Your task to perform on an android device: Search for logitech g pro on ebay.com, select the first entry, and add it to the cart. Image 0: 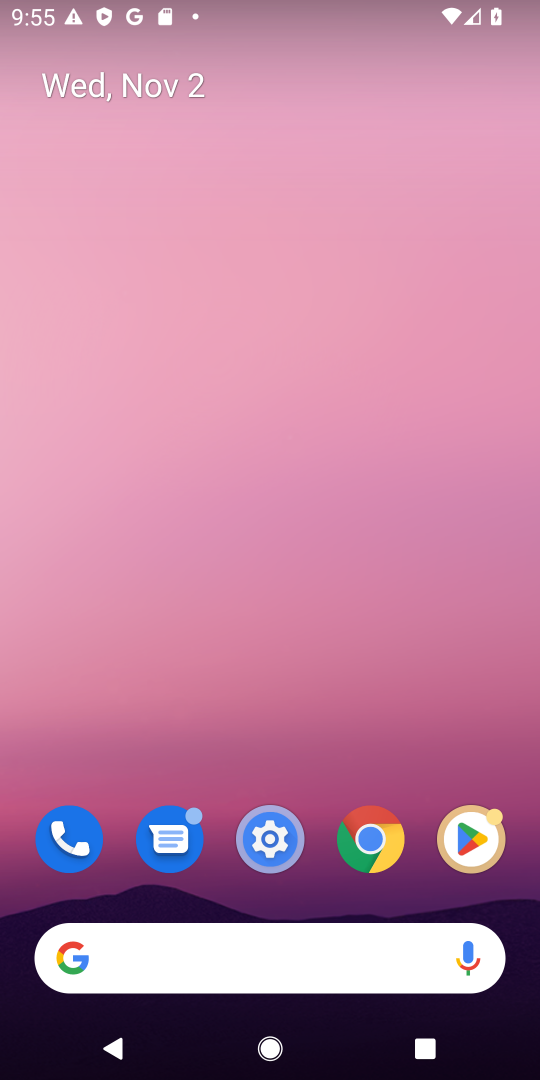
Step 0: drag from (354, 979) to (349, 215)
Your task to perform on an android device: Search for logitech g pro on ebay.com, select the first entry, and add it to the cart. Image 1: 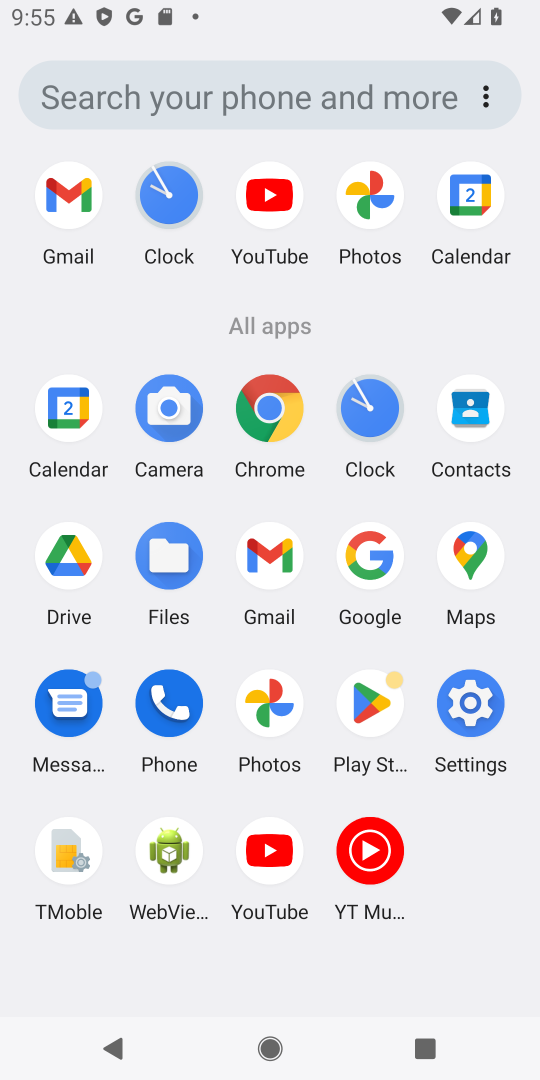
Step 1: click (407, 538)
Your task to perform on an android device: Search for logitech g pro on ebay.com, select the first entry, and add it to the cart. Image 2: 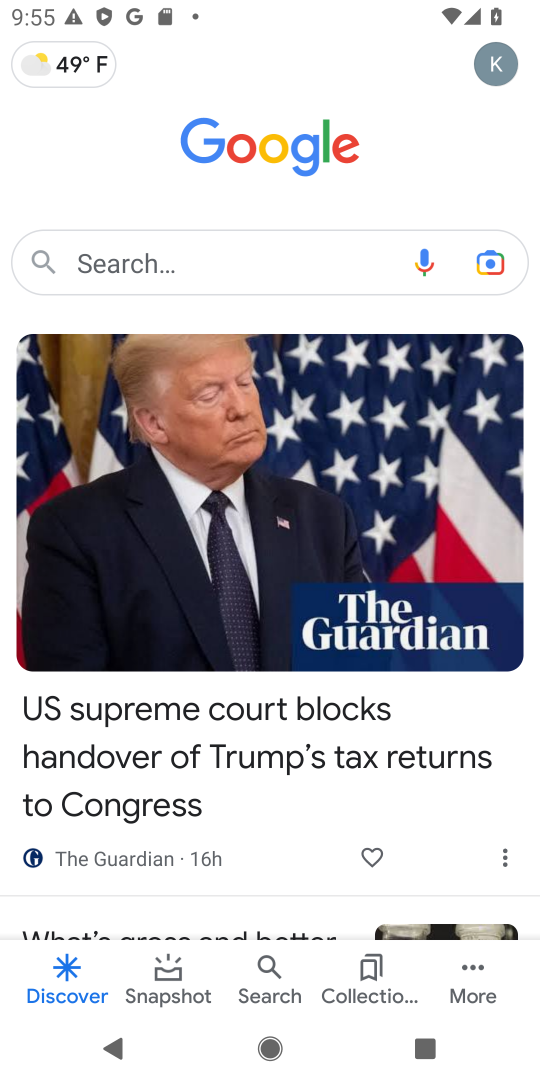
Step 2: click (235, 235)
Your task to perform on an android device: Search for logitech g pro on ebay.com, select the first entry, and add it to the cart. Image 3: 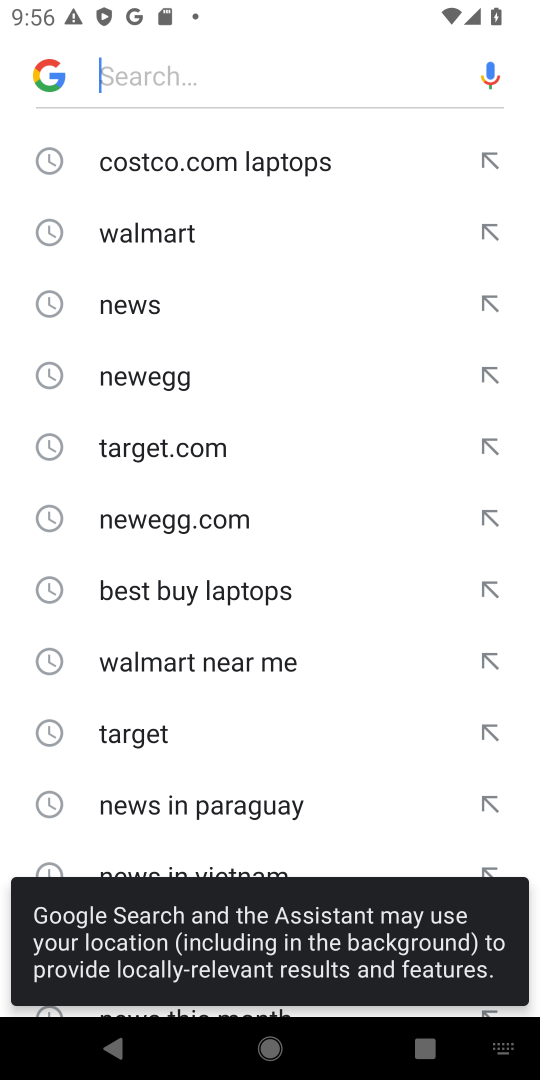
Step 3: type "ebay.com"
Your task to perform on an android device: Search for logitech g pro on ebay.com, select the first entry, and add it to the cart. Image 4: 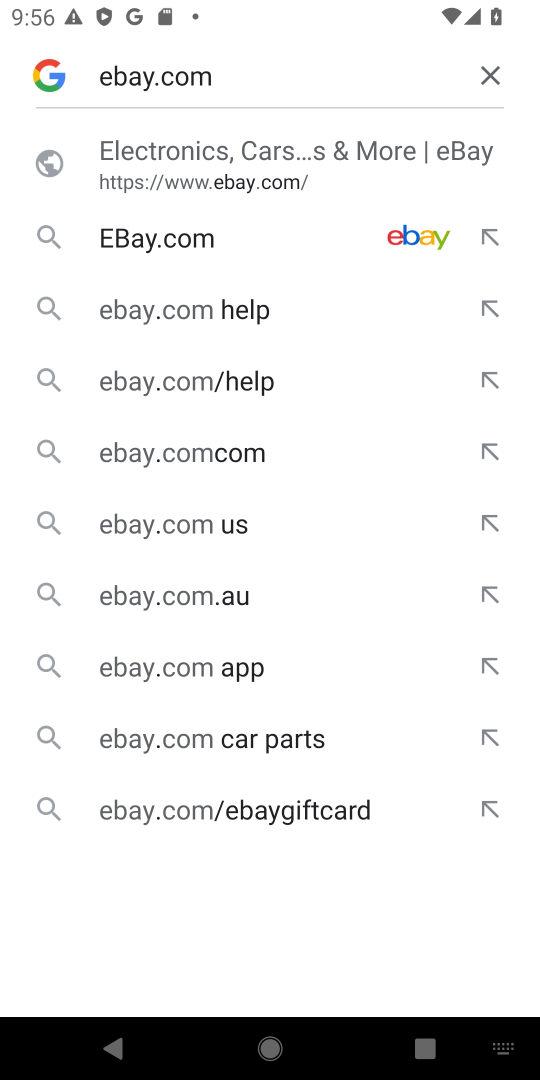
Step 4: click (271, 153)
Your task to perform on an android device: Search for logitech g pro on ebay.com, select the first entry, and add it to the cart. Image 5: 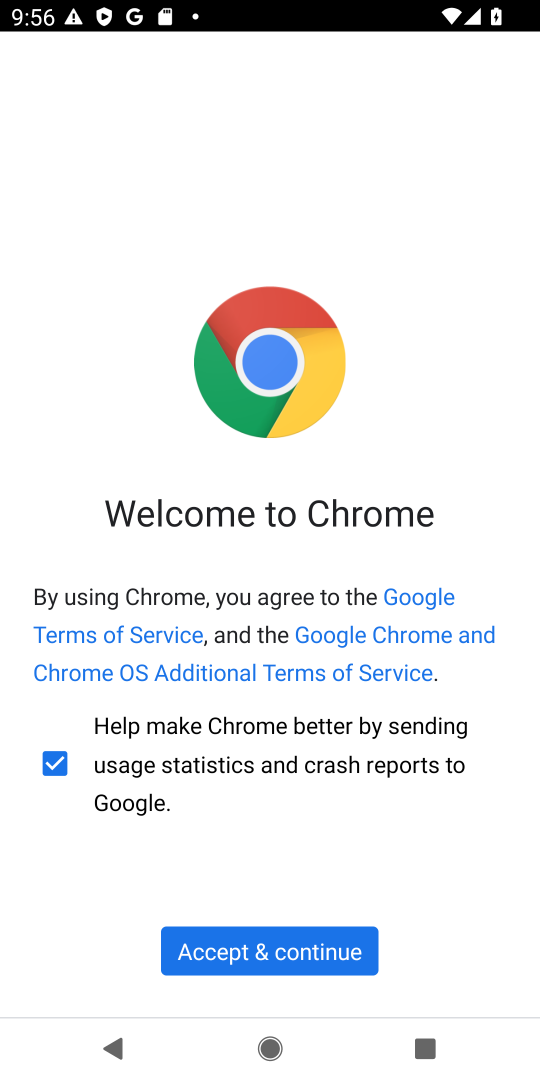
Step 5: click (322, 962)
Your task to perform on an android device: Search for logitech g pro on ebay.com, select the first entry, and add it to the cart. Image 6: 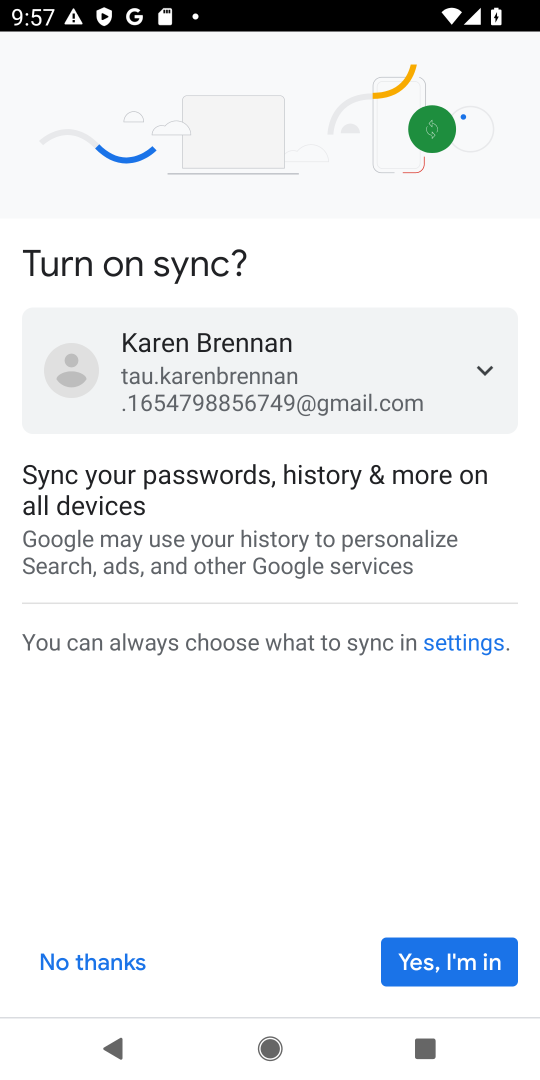
Step 6: click (394, 955)
Your task to perform on an android device: Search for logitech g pro on ebay.com, select the first entry, and add it to the cart. Image 7: 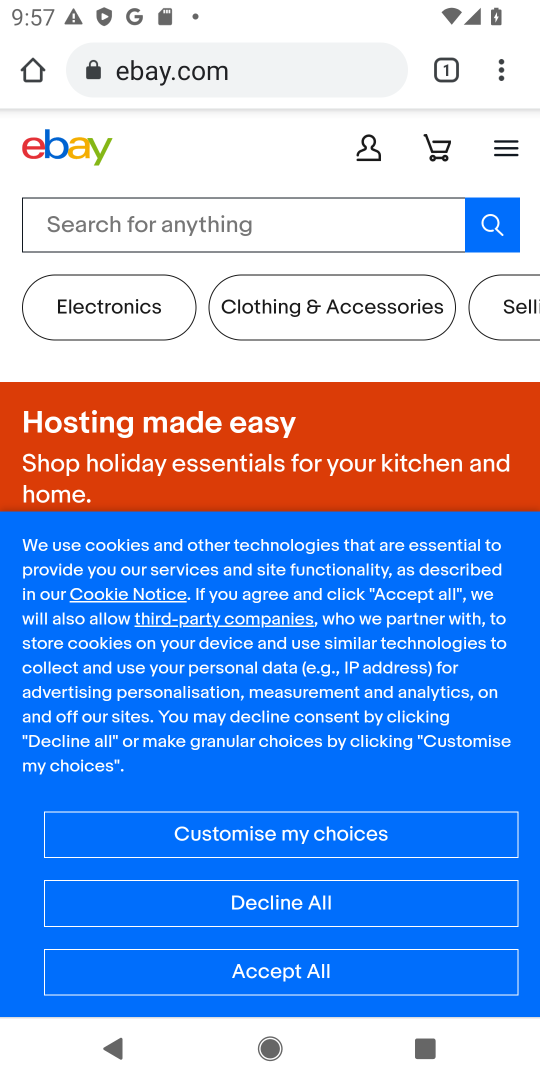
Step 7: click (158, 241)
Your task to perform on an android device: Search for logitech g pro on ebay.com, select the first entry, and add it to the cart. Image 8: 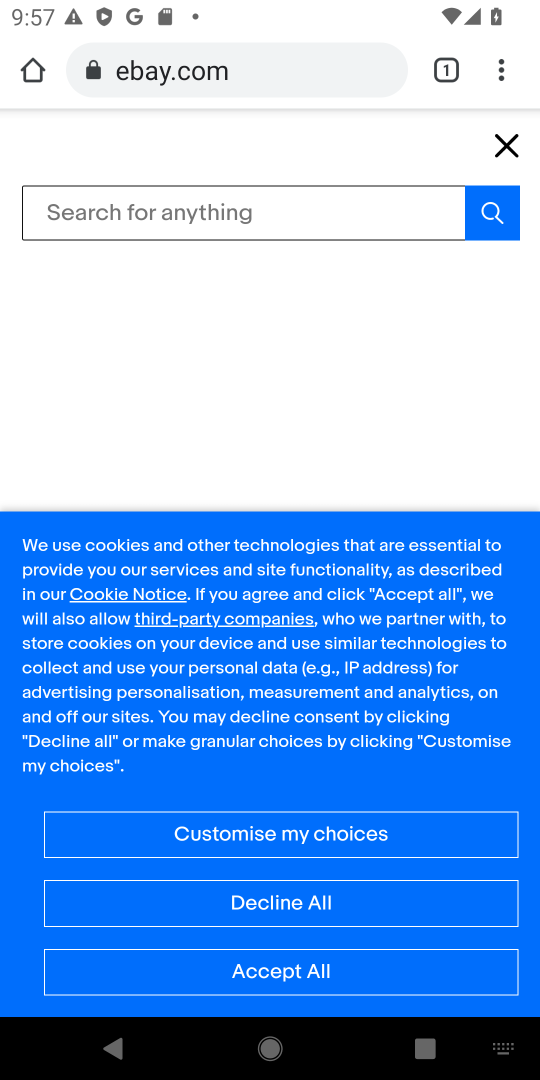
Step 8: type "logitech g pro"
Your task to perform on an android device: Search for logitech g pro on ebay.com, select the first entry, and add it to the cart. Image 9: 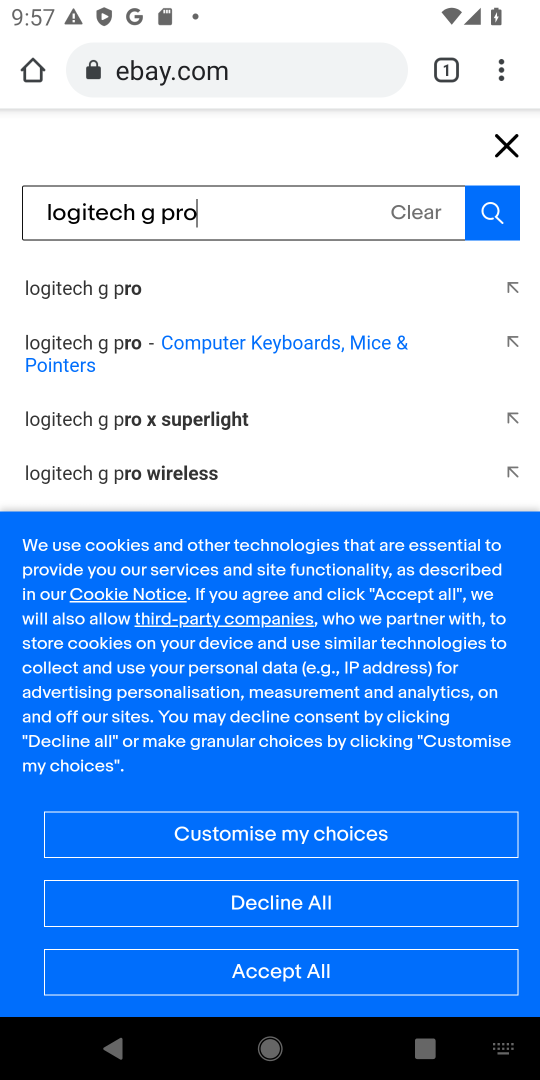
Step 9: click (500, 226)
Your task to perform on an android device: Search for logitech g pro on ebay.com, select the first entry, and add it to the cart. Image 10: 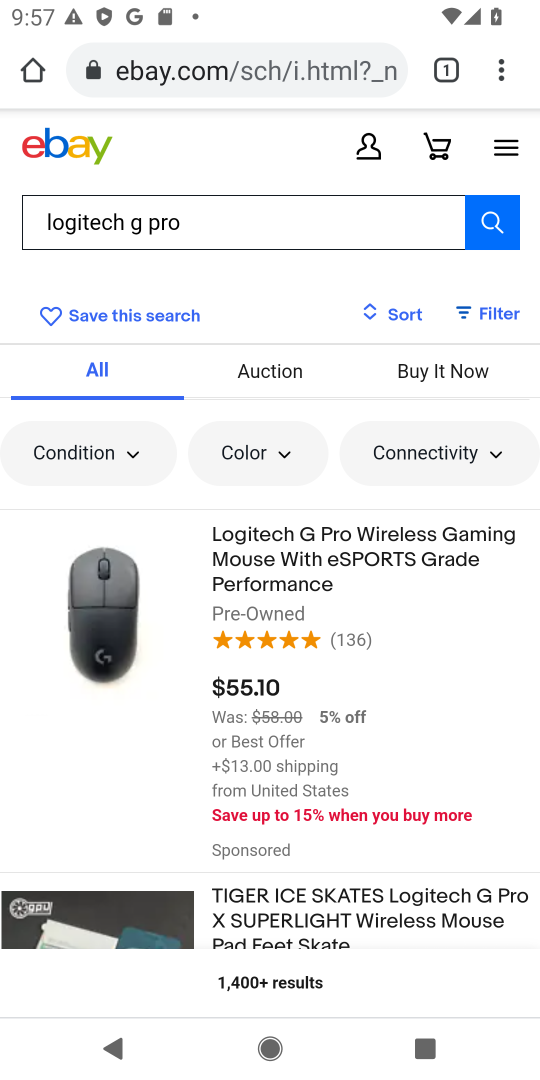
Step 10: click (348, 546)
Your task to perform on an android device: Search for logitech g pro on ebay.com, select the first entry, and add it to the cart. Image 11: 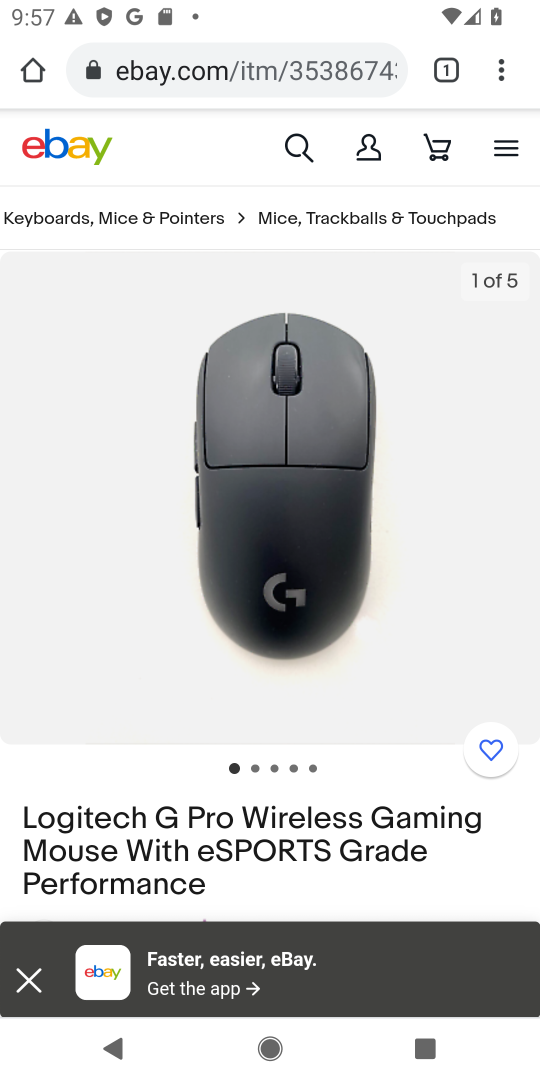
Step 11: drag from (284, 819) to (259, 87)
Your task to perform on an android device: Search for logitech g pro on ebay.com, select the first entry, and add it to the cart. Image 12: 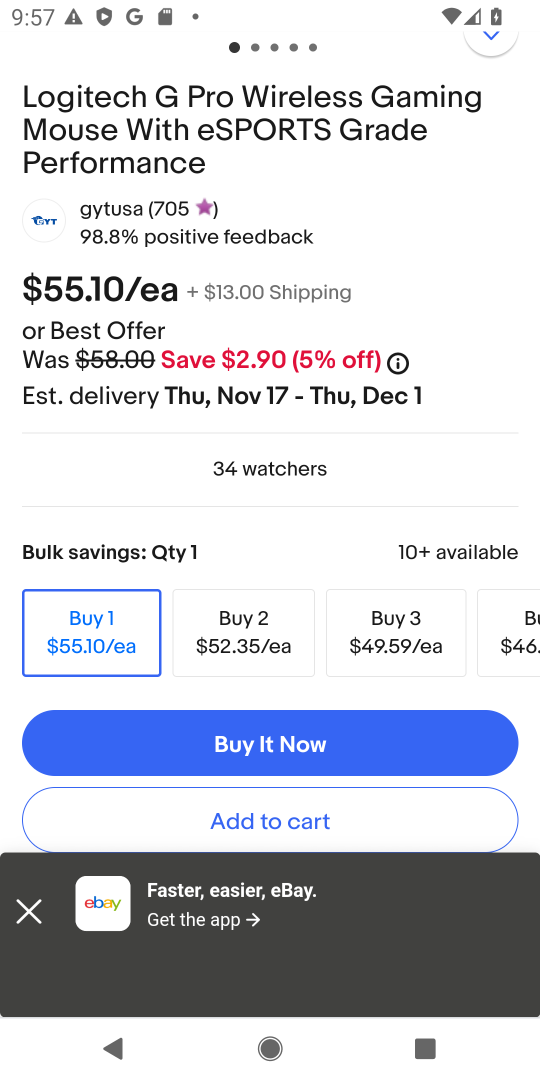
Step 12: click (346, 823)
Your task to perform on an android device: Search for logitech g pro on ebay.com, select the first entry, and add it to the cart. Image 13: 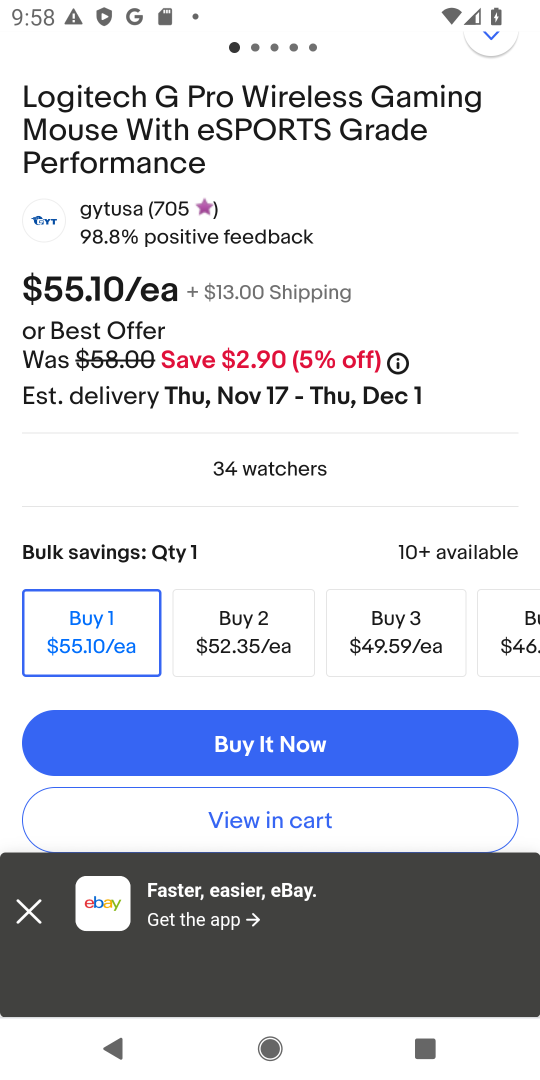
Step 13: task complete